Your task to perform on an android device: Go to CNN.com Image 0: 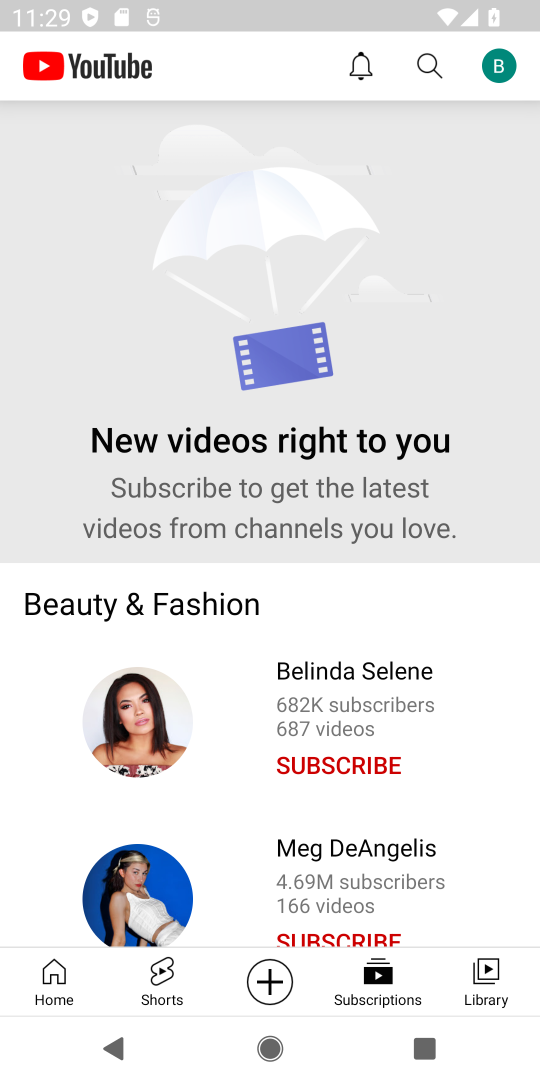
Step 0: press home button
Your task to perform on an android device: Go to CNN.com Image 1: 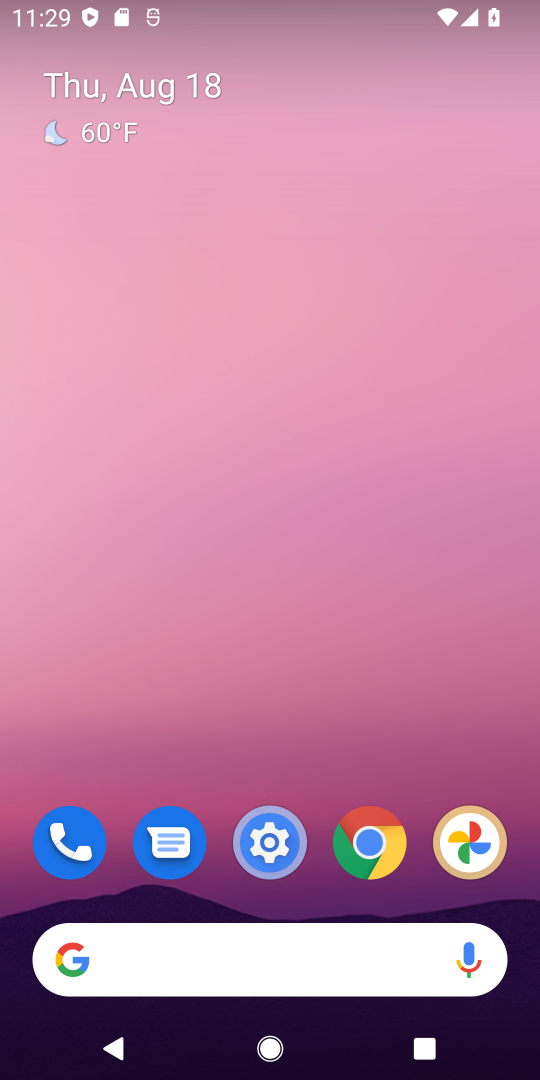
Step 1: click (230, 938)
Your task to perform on an android device: Go to CNN.com Image 2: 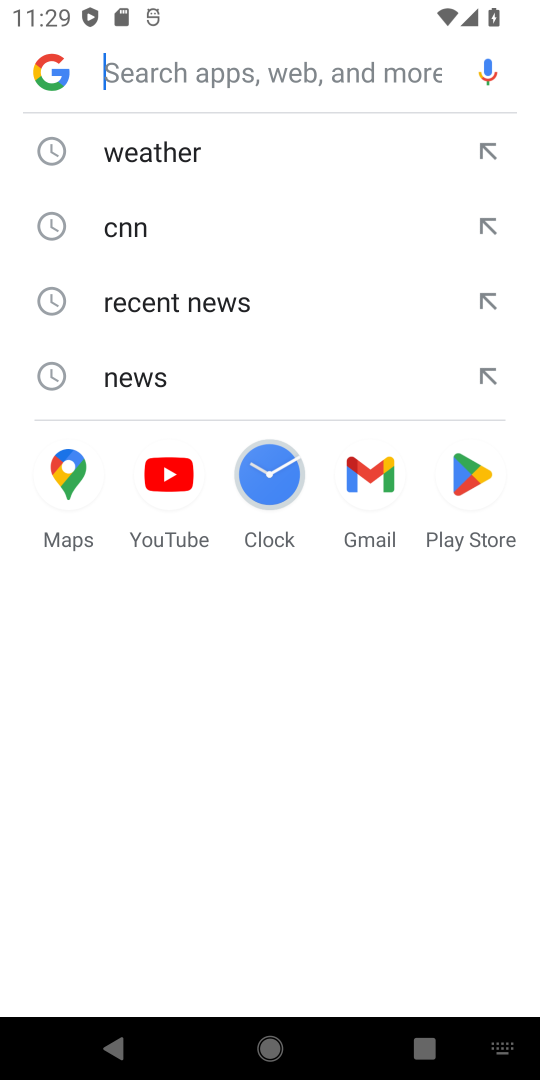
Step 2: type "cnn"
Your task to perform on an android device: Go to CNN.com Image 3: 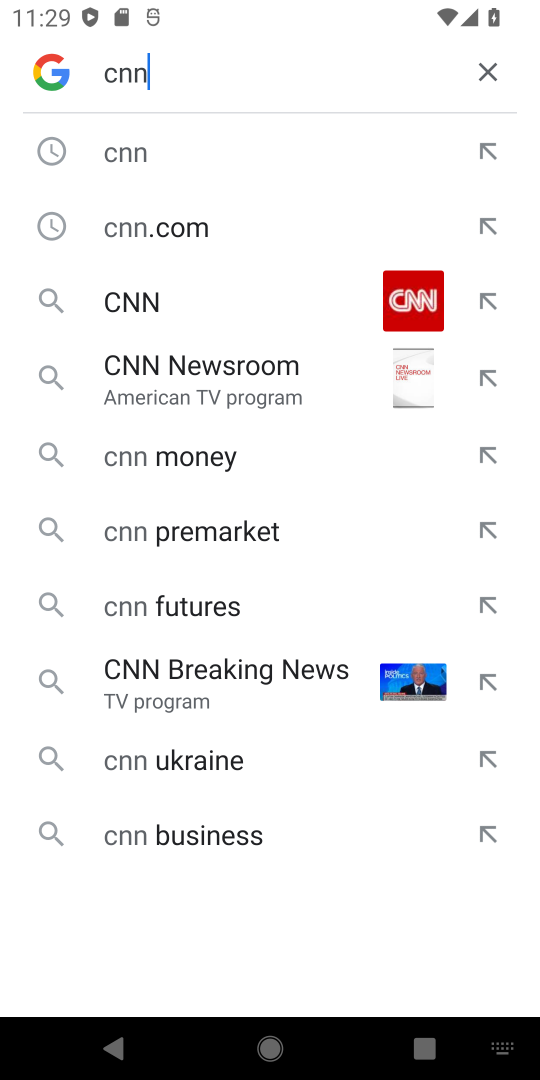
Step 3: click (224, 316)
Your task to perform on an android device: Go to CNN.com Image 4: 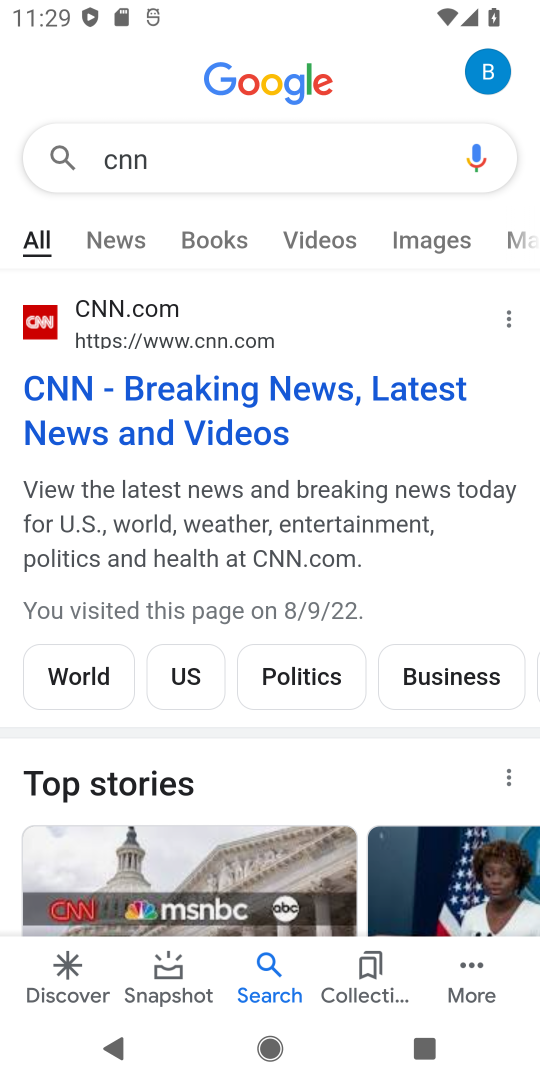
Step 4: click (266, 381)
Your task to perform on an android device: Go to CNN.com Image 5: 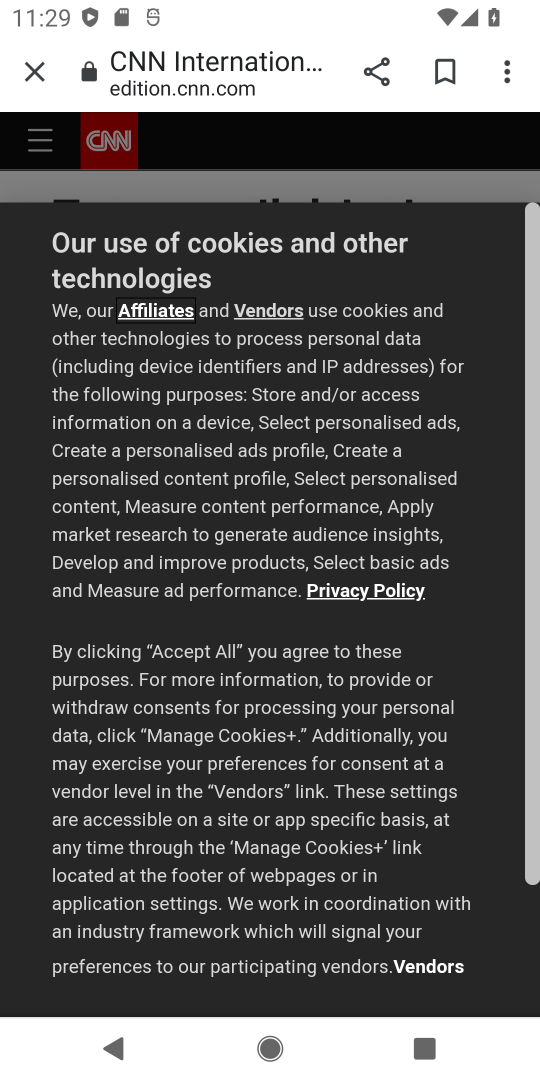
Step 5: task complete